Your task to perform on an android device: uninstall "Roku - Official Remote Control" Image 0: 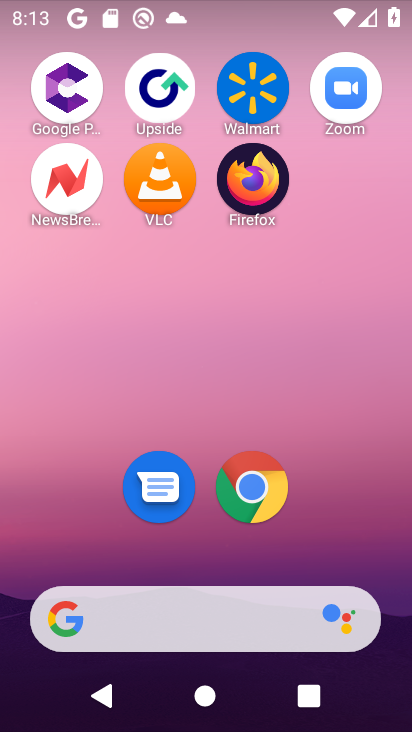
Step 0: drag from (225, 700) to (169, 132)
Your task to perform on an android device: uninstall "Roku - Official Remote Control" Image 1: 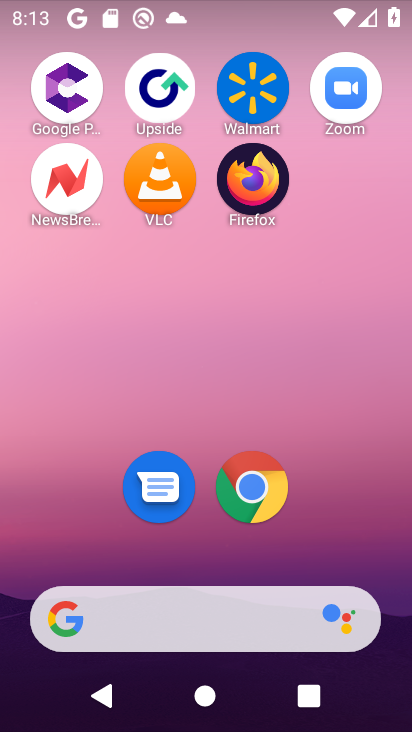
Step 1: drag from (263, 600) to (205, 147)
Your task to perform on an android device: uninstall "Roku - Official Remote Control" Image 2: 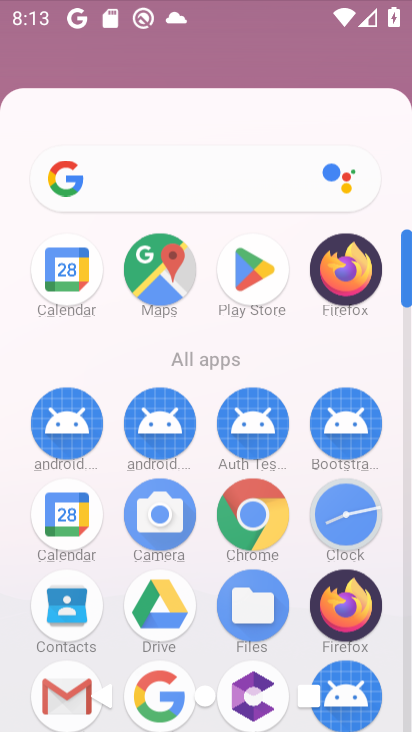
Step 2: drag from (291, 463) to (227, 265)
Your task to perform on an android device: uninstall "Roku - Official Remote Control" Image 3: 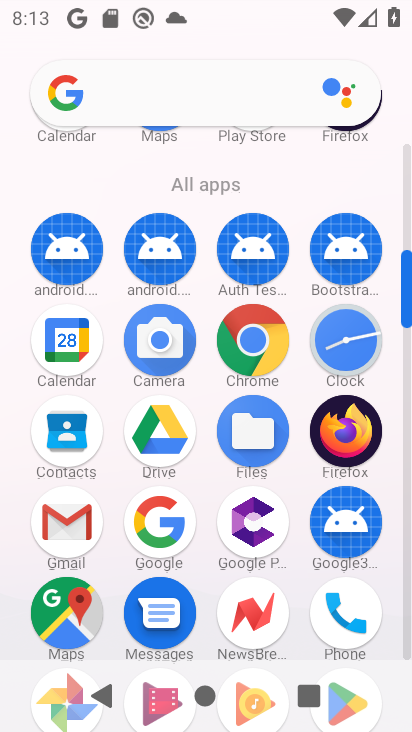
Step 3: drag from (197, 234) to (252, 594)
Your task to perform on an android device: uninstall "Roku - Official Remote Control" Image 4: 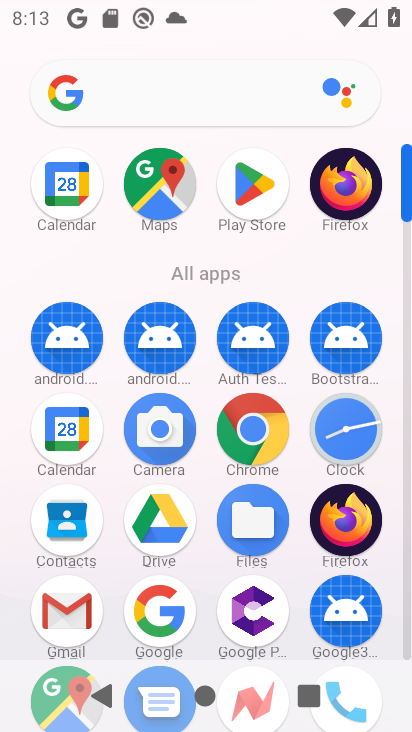
Step 4: click (259, 175)
Your task to perform on an android device: uninstall "Roku - Official Remote Control" Image 5: 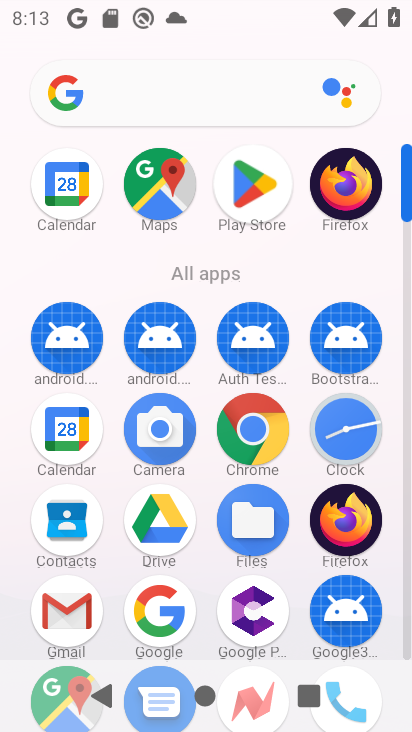
Step 5: click (255, 180)
Your task to perform on an android device: uninstall "Roku - Official Remote Control" Image 6: 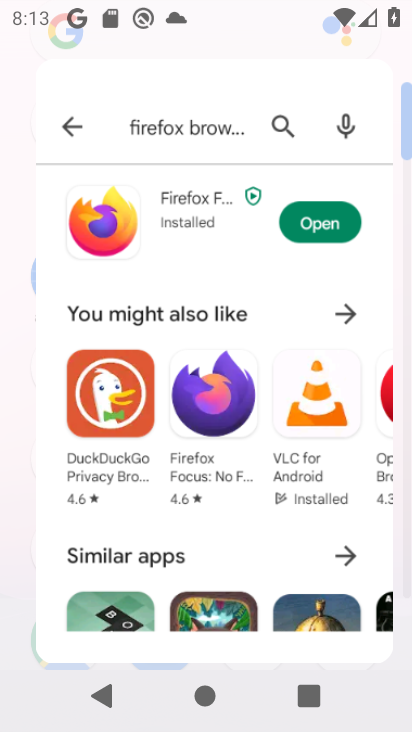
Step 6: click (254, 181)
Your task to perform on an android device: uninstall "Roku - Official Remote Control" Image 7: 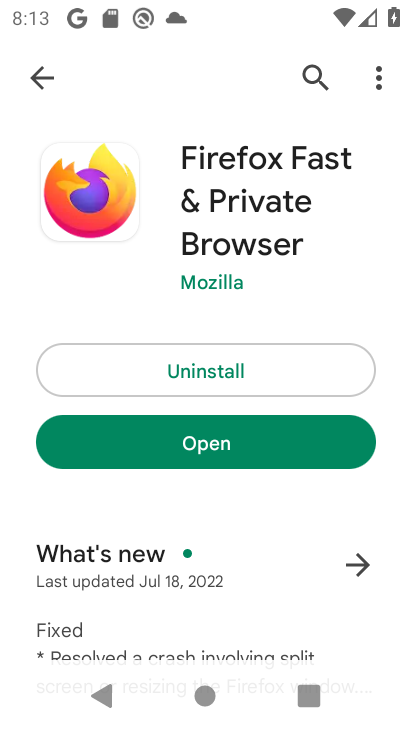
Step 7: click (37, 74)
Your task to perform on an android device: uninstall "Roku - Official Remote Control" Image 8: 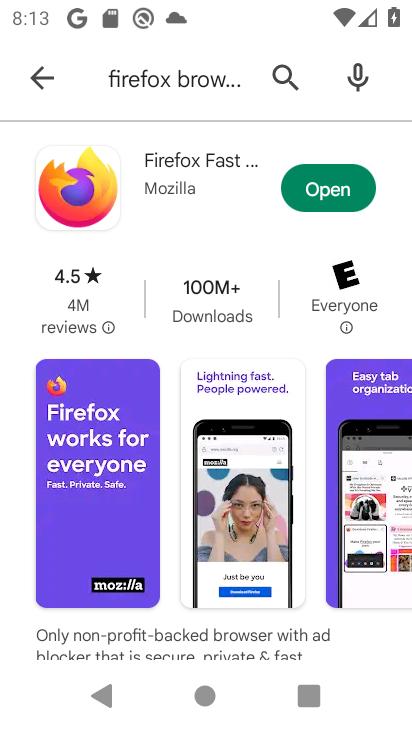
Step 8: click (25, 81)
Your task to perform on an android device: uninstall "Roku - Official Remote Control" Image 9: 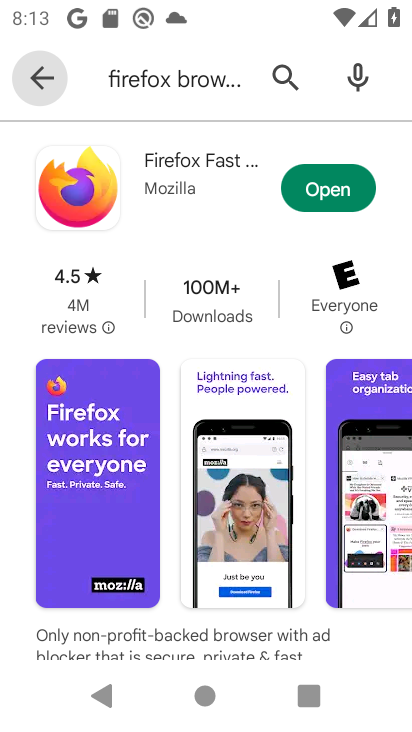
Step 9: click (26, 80)
Your task to perform on an android device: uninstall "Roku - Official Remote Control" Image 10: 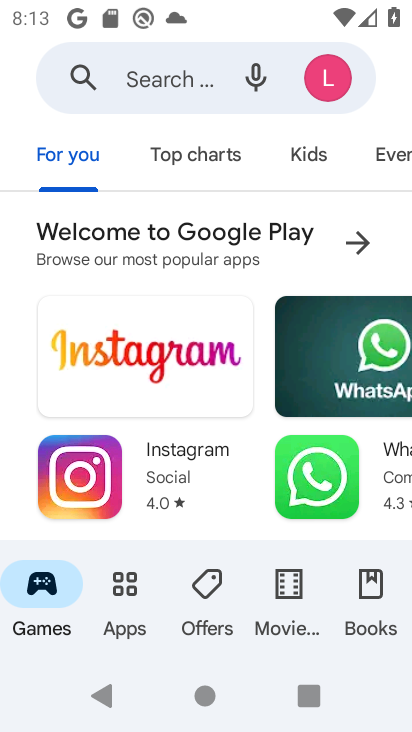
Step 10: click (139, 89)
Your task to perform on an android device: uninstall "Roku - Official Remote Control" Image 11: 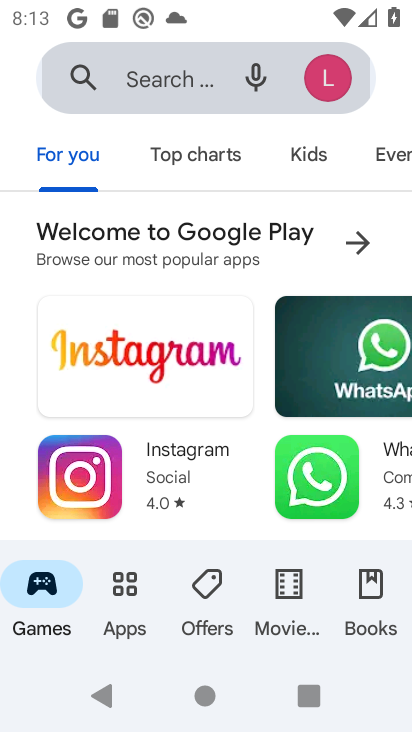
Step 11: click (142, 83)
Your task to perform on an android device: uninstall "Roku - Official Remote Control" Image 12: 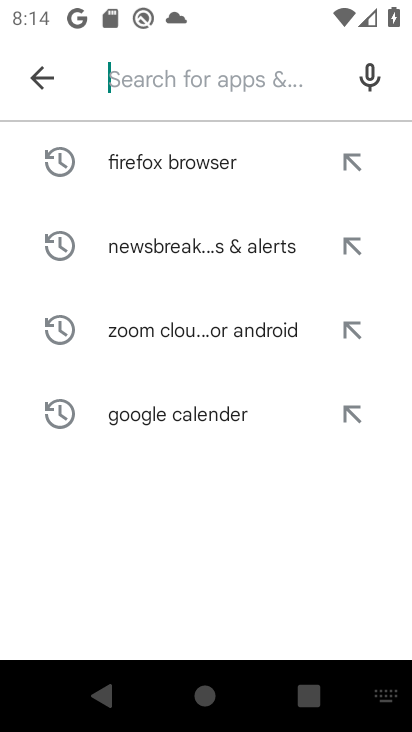
Step 12: type "Roku - Official Remote Control"
Your task to perform on an android device: uninstall "Roku - Official Remote Control" Image 13: 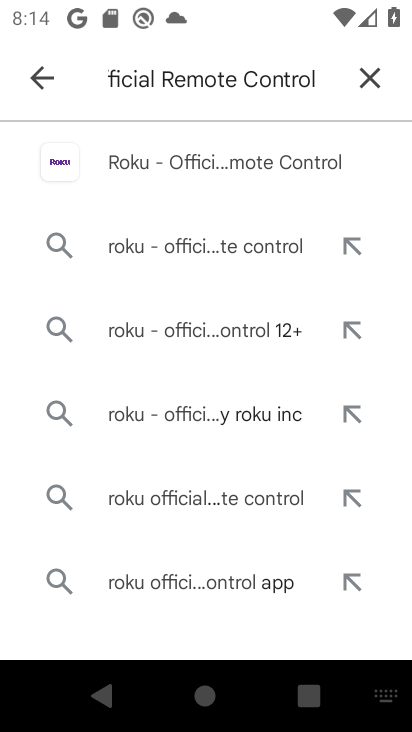
Step 13: click (252, 164)
Your task to perform on an android device: uninstall "Roku - Official Remote Control" Image 14: 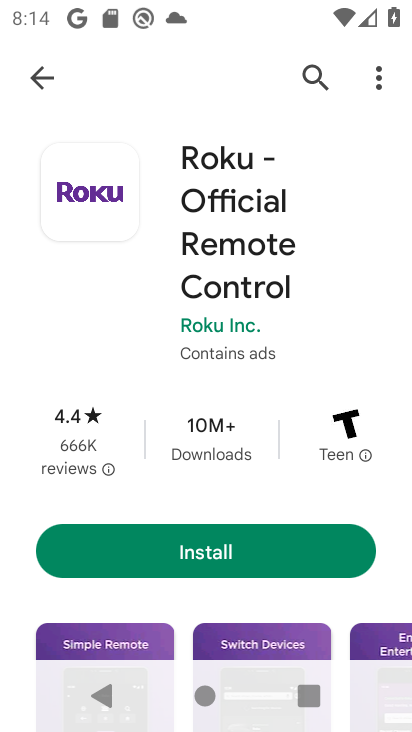
Step 14: click (234, 546)
Your task to perform on an android device: uninstall "Roku - Official Remote Control" Image 15: 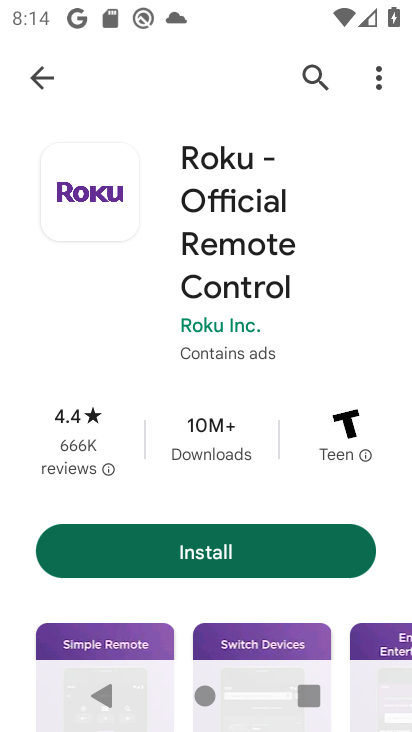
Step 15: click (234, 546)
Your task to perform on an android device: uninstall "Roku - Official Remote Control" Image 16: 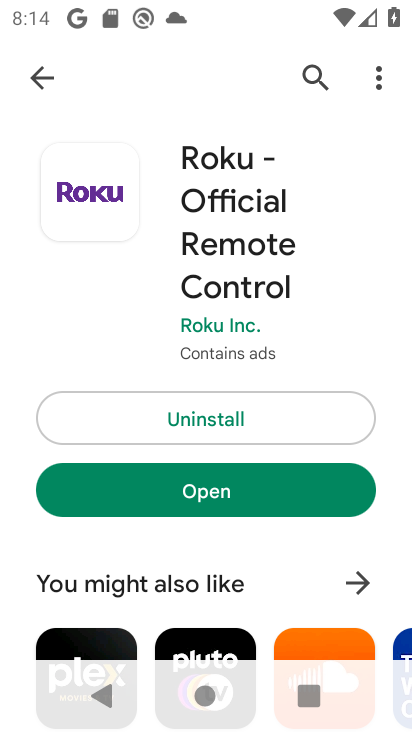
Step 16: click (245, 489)
Your task to perform on an android device: uninstall "Roku - Official Remote Control" Image 17: 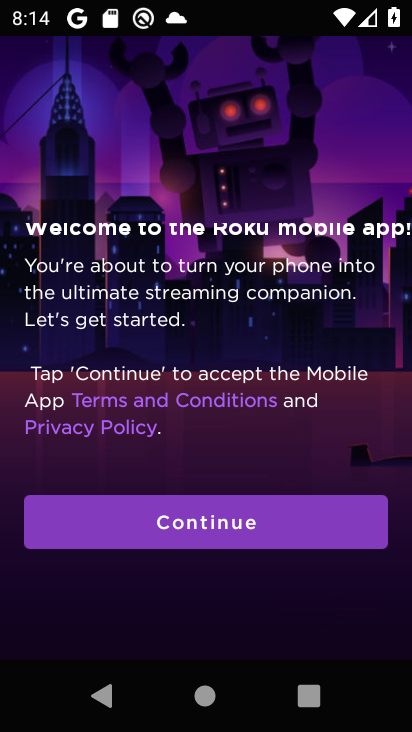
Step 17: click (265, 523)
Your task to perform on an android device: uninstall "Roku - Official Remote Control" Image 18: 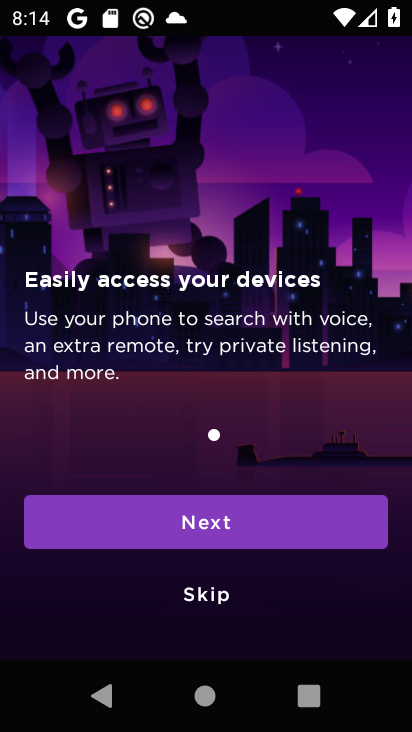
Step 18: click (219, 588)
Your task to perform on an android device: uninstall "Roku - Official Remote Control" Image 19: 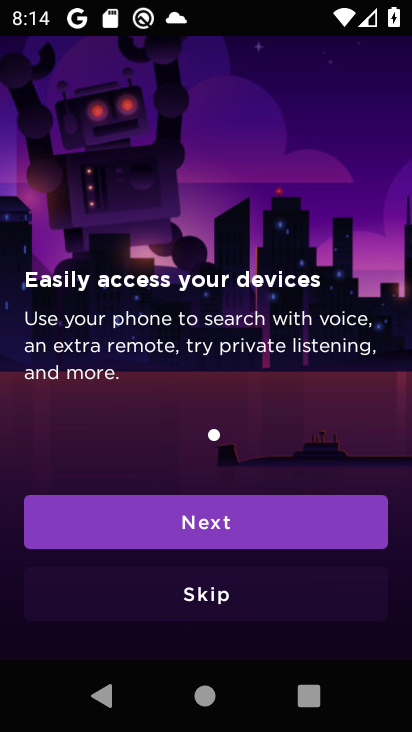
Step 19: click (213, 591)
Your task to perform on an android device: uninstall "Roku - Official Remote Control" Image 20: 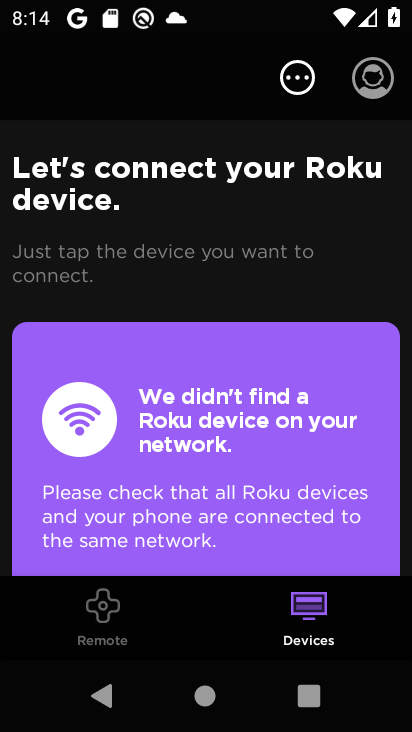
Step 20: task complete